Your task to perform on an android device: Open battery settings Image 0: 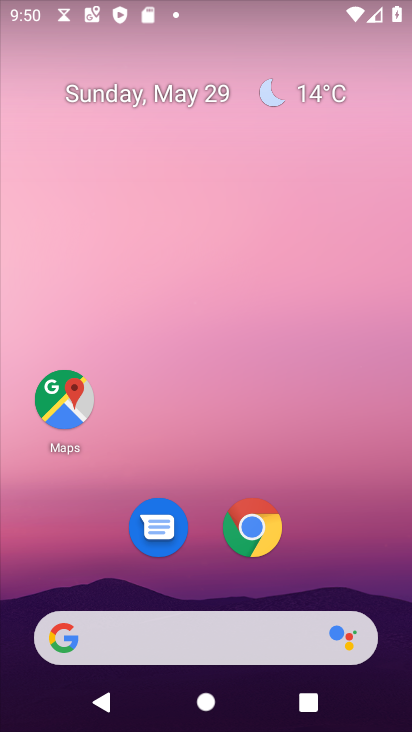
Step 0: drag from (169, 634) to (257, 63)
Your task to perform on an android device: Open battery settings Image 1: 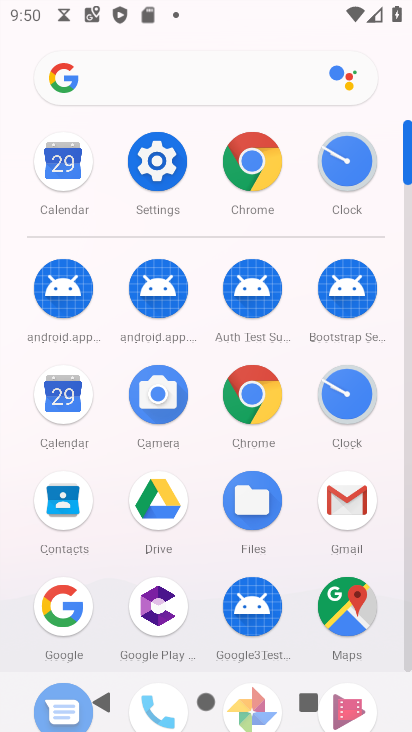
Step 1: click (153, 168)
Your task to perform on an android device: Open battery settings Image 2: 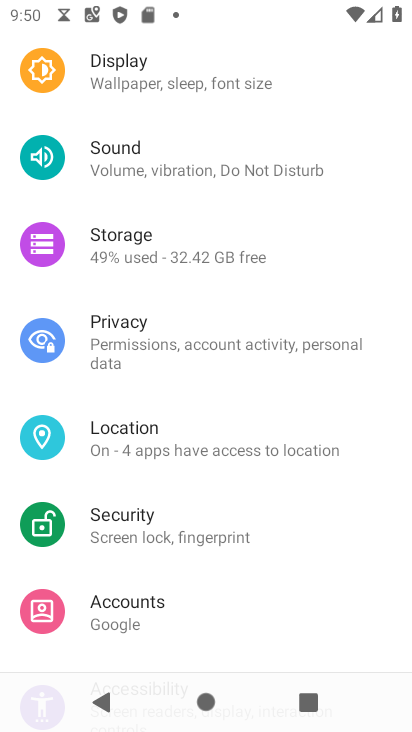
Step 2: drag from (327, 269) to (346, 541)
Your task to perform on an android device: Open battery settings Image 3: 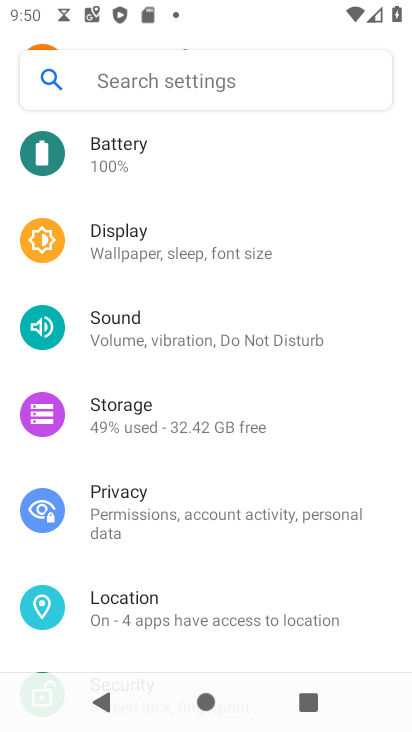
Step 3: click (110, 164)
Your task to perform on an android device: Open battery settings Image 4: 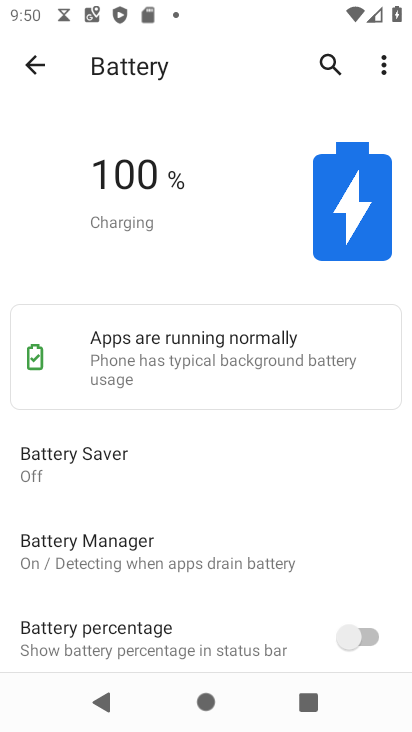
Step 4: task complete